Your task to perform on an android device: choose inbox layout in the gmail app Image 0: 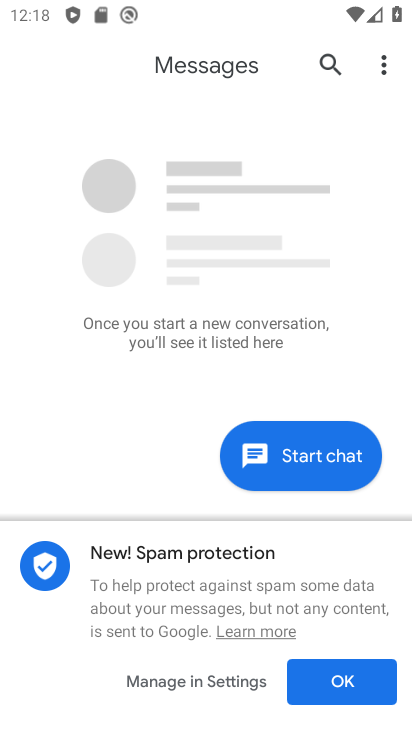
Step 0: press home button
Your task to perform on an android device: choose inbox layout in the gmail app Image 1: 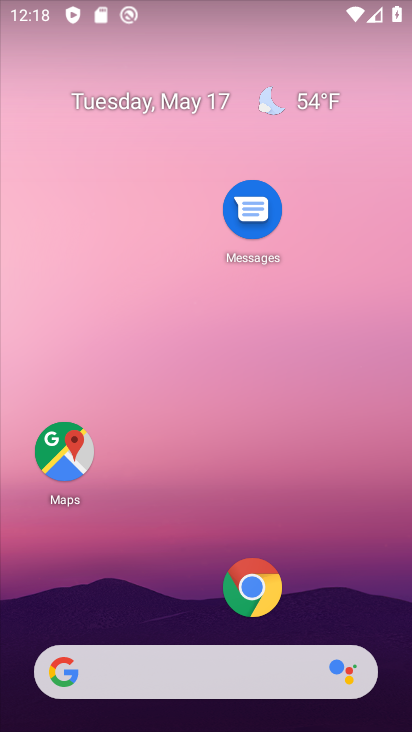
Step 1: drag from (180, 564) to (182, 58)
Your task to perform on an android device: choose inbox layout in the gmail app Image 2: 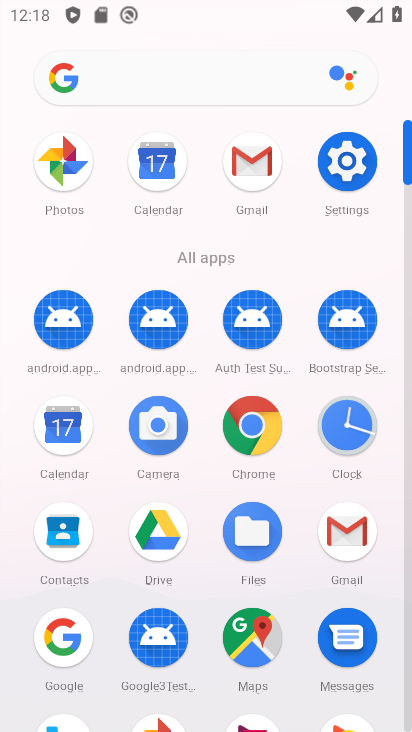
Step 2: click (364, 543)
Your task to perform on an android device: choose inbox layout in the gmail app Image 3: 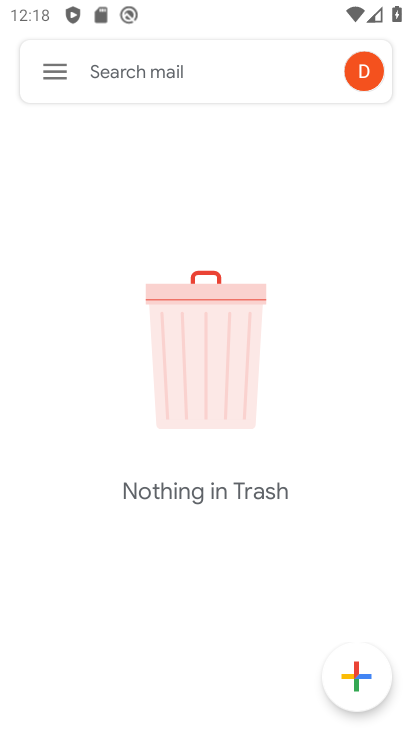
Step 3: click (54, 74)
Your task to perform on an android device: choose inbox layout in the gmail app Image 4: 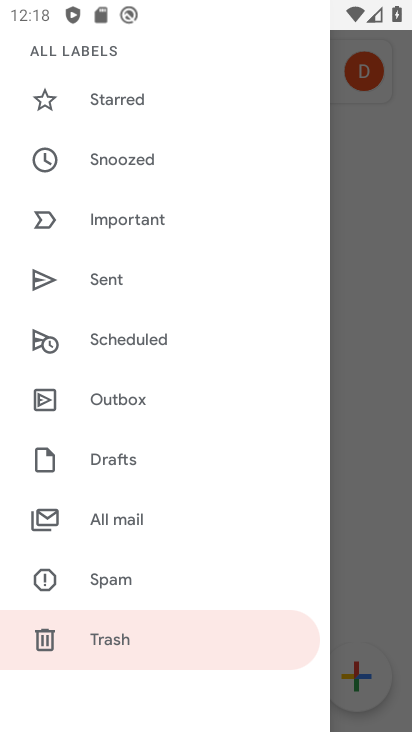
Step 4: drag from (140, 527) to (222, 81)
Your task to perform on an android device: choose inbox layout in the gmail app Image 5: 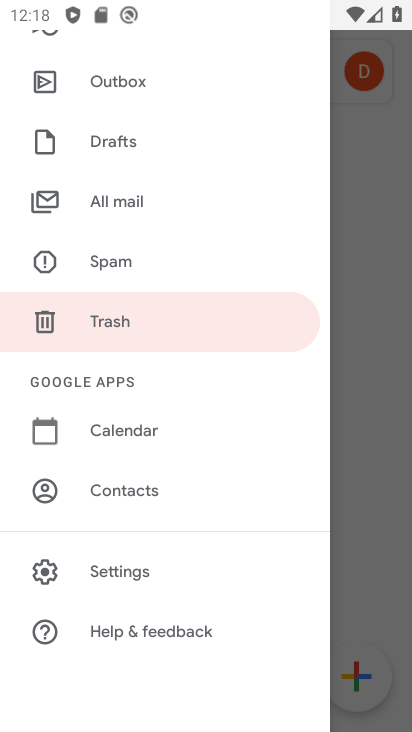
Step 5: click (132, 585)
Your task to perform on an android device: choose inbox layout in the gmail app Image 6: 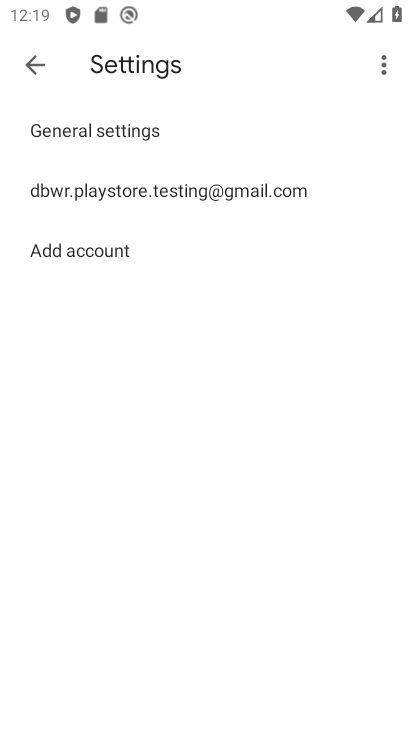
Step 6: click (101, 191)
Your task to perform on an android device: choose inbox layout in the gmail app Image 7: 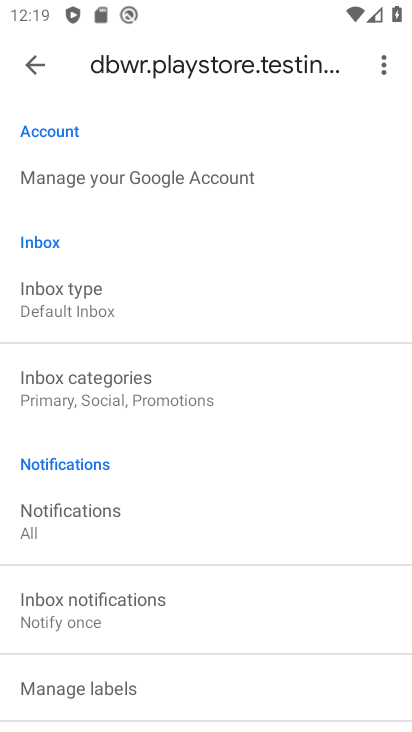
Step 7: click (99, 320)
Your task to perform on an android device: choose inbox layout in the gmail app Image 8: 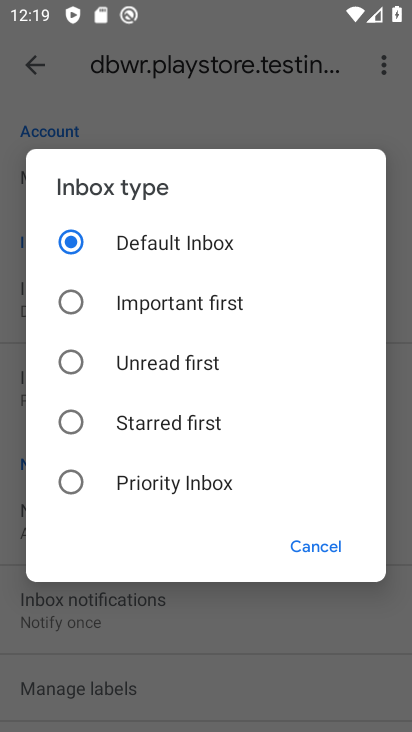
Step 8: click (66, 486)
Your task to perform on an android device: choose inbox layout in the gmail app Image 9: 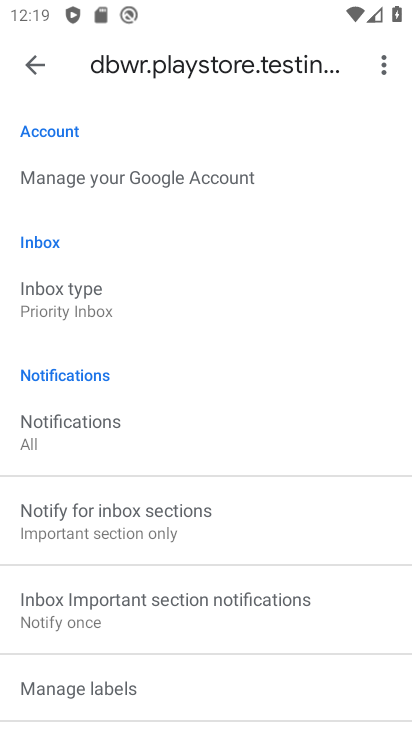
Step 9: task complete